Your task to perform on an android device: check android version Image 0: 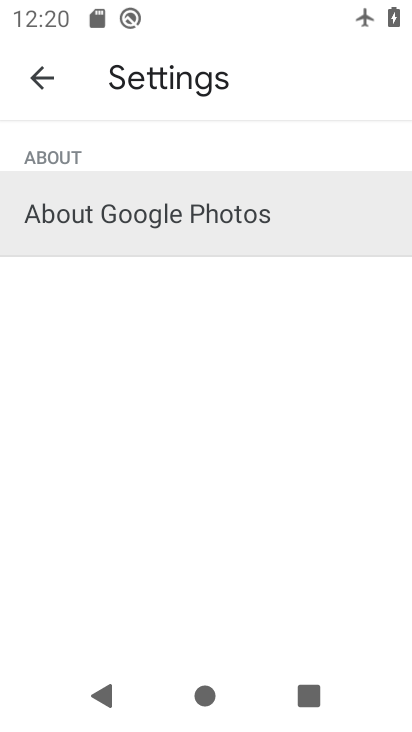
Step 0: press home button
Your task to perform on an android device: check android version Image 1: 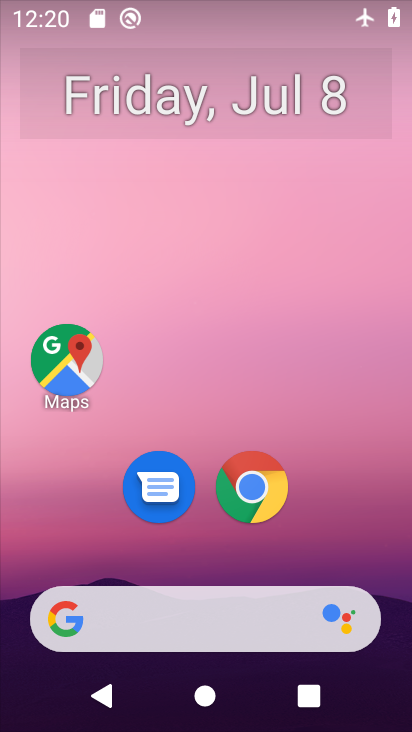
Step 1: drag from (367, 548) to (366, 111)
Your task to perform on an android device: check android version Image 2: 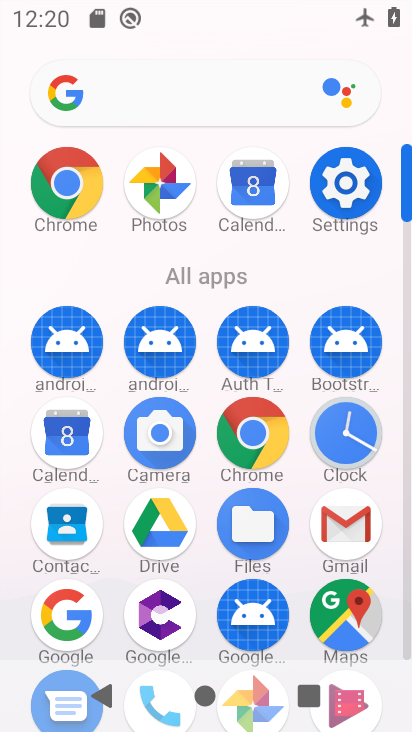
Step 2: click (347, 182)
Your task to perform on an android device: check android version Image 3: 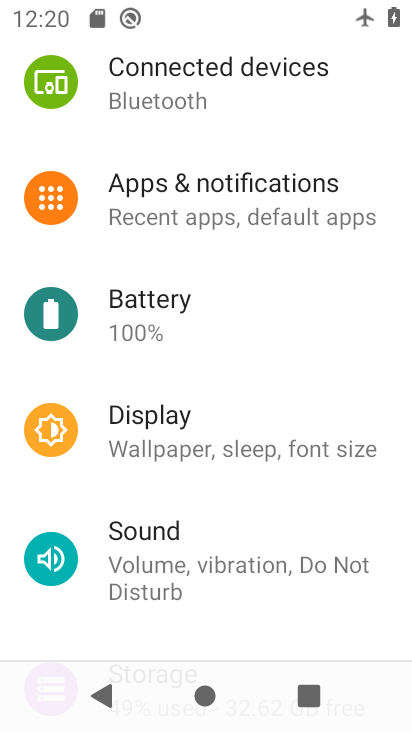
Step 3: drag from (359, 349) to (363, 246)
Your task to perform on an android device: check android version Image 4: 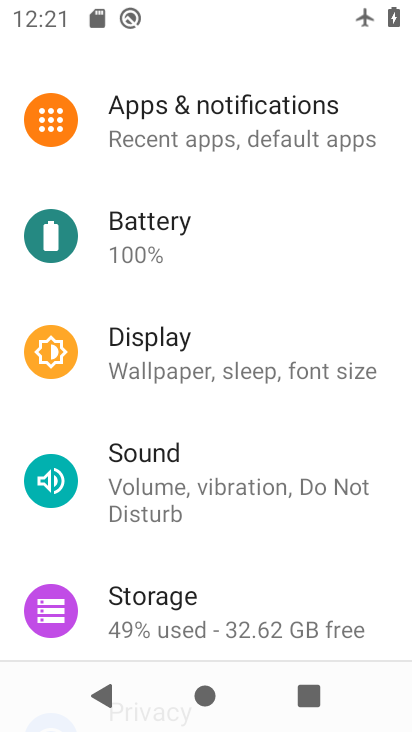
Step 4: drag from (373, 407) to (377, 306)
Your task to perform on an android device: check android version Image 5: 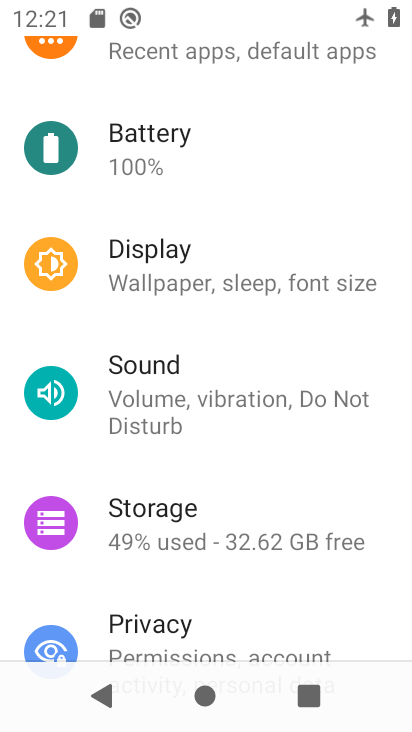
Step 5: drag from (363, 427) to (378, 327)
Your task to perform on an android device: check android version Image 6: 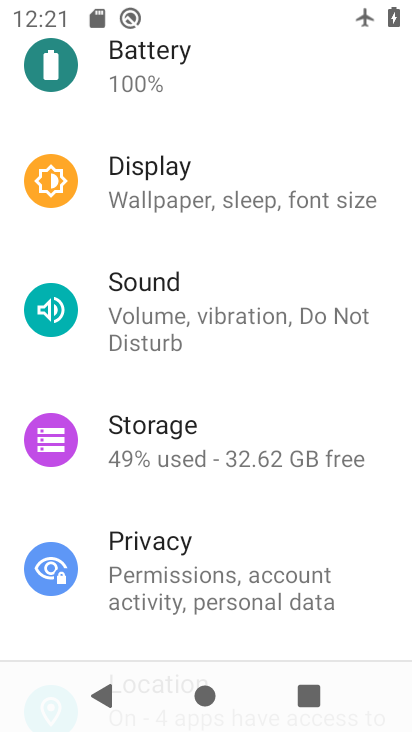
Step 6: drag from (378, 414) to (376, 334)
Your task to perform on an android device: check android version Image 7: 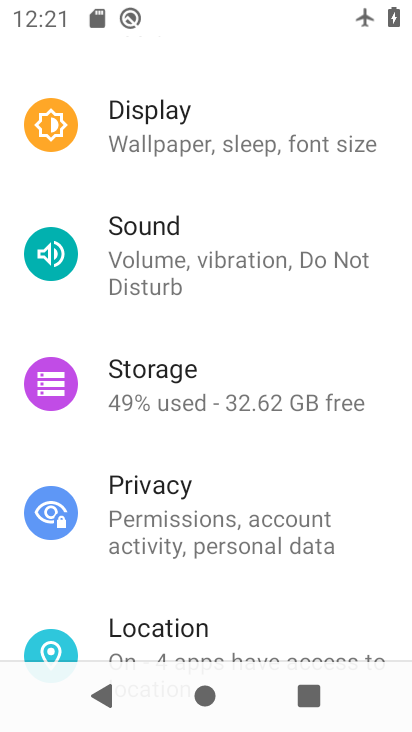
Step 7: drag from (357, 438) to (367, 358)
Your task to perform on an android device: check android version Image 8: 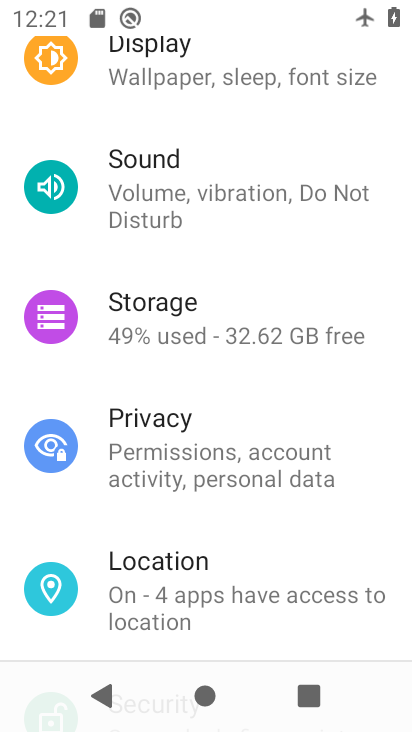
Step 8: drag from (372, 436) to (386, 344)
Your task to perform on an android device: check android version Image 9: 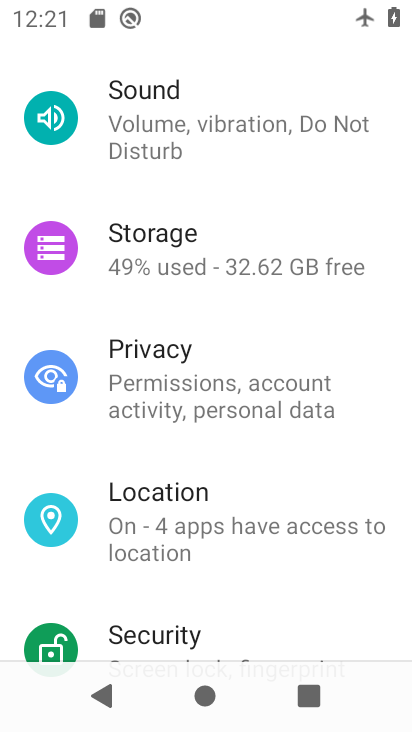
Step 9: drag from (372, 435) to (383, 344)
Your task to perform on an android device: check android version Image 10: 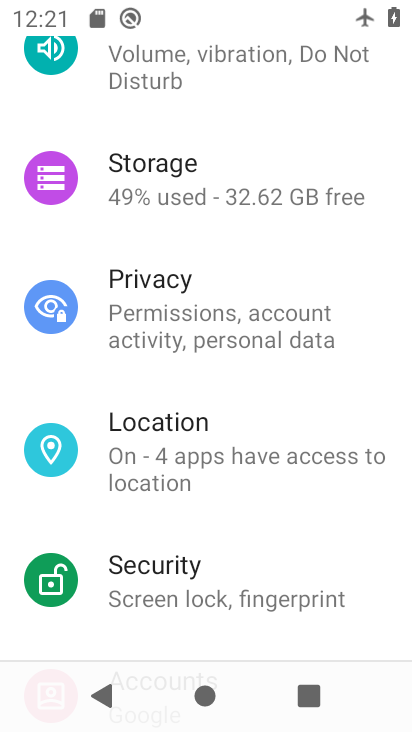
Step 10: drag from (365, 477) to (382, 356)
Your task to perform on an android device: check android version Image 11: 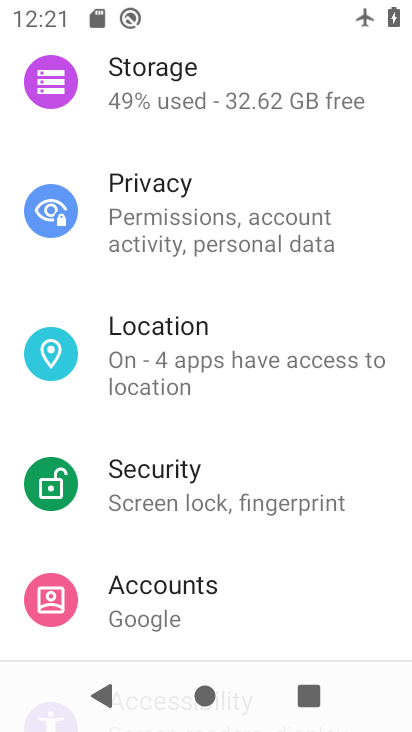
Step 11: drag from (368, 470) to (371, 378)
Your task to perform on an android device: check android version Image 12: 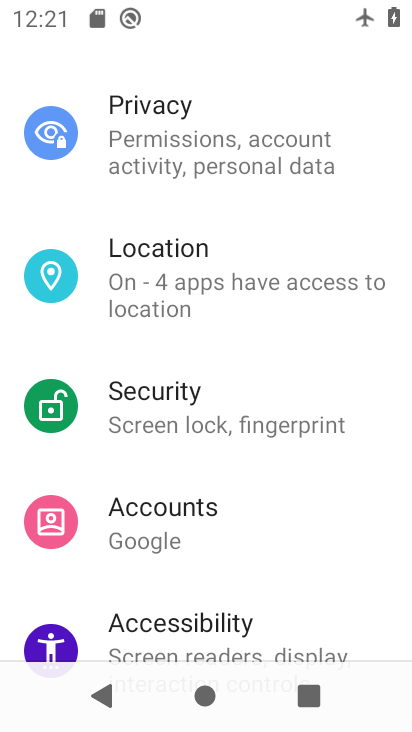
Step 12: drag from (361, 480) to (370, 406)
Your task to perform on an android device: check android version Image 13: 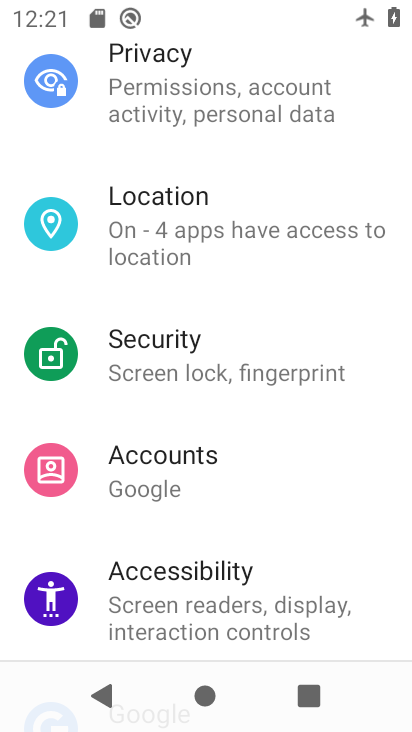
Step 13: drag from (360, 503) to (373, 405)
Your task to perform on an android device: check android version Image 14: 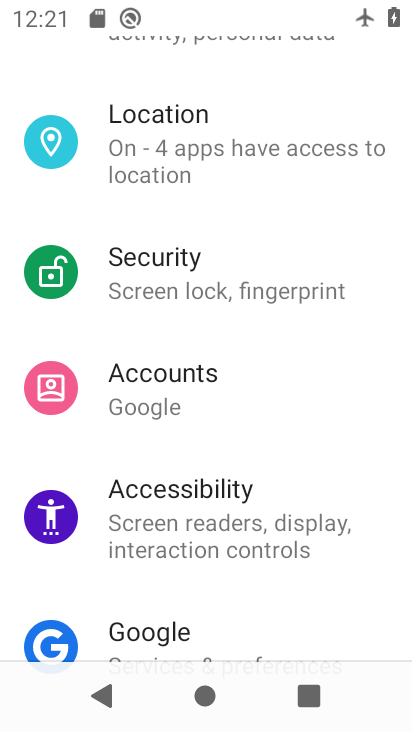
Step 14: drag from (372, 503) to (369, 414)
Your task to perform on an android device: check android version Image 15: 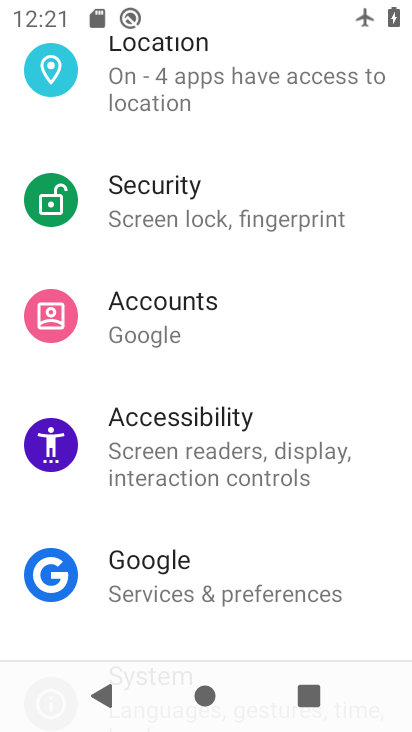
Step 15: drag from (356, 518) to (354, 438)
Your task to perform on an android device: check android version Image 16: 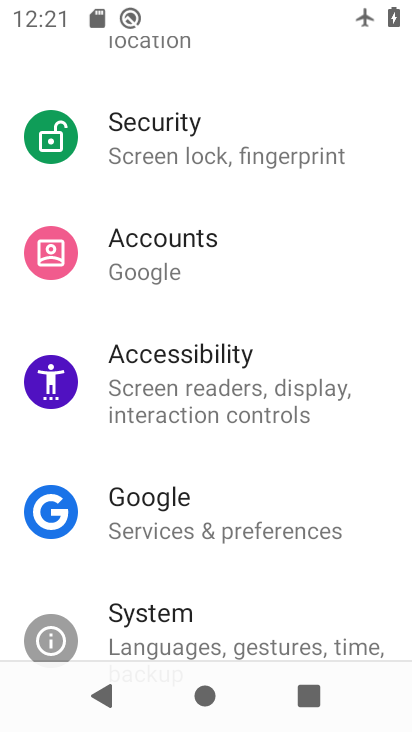
Step 16: drag from (361, 520) to (367, 405)
Your task to perform on an android device: check android version Image 17: 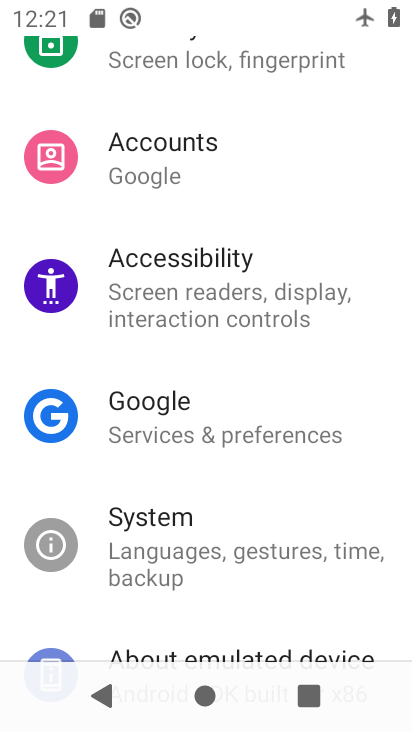
Step 17: drag from (375, 586) to (374, 446)
Your task to perform on an android device: check android version Image 18: 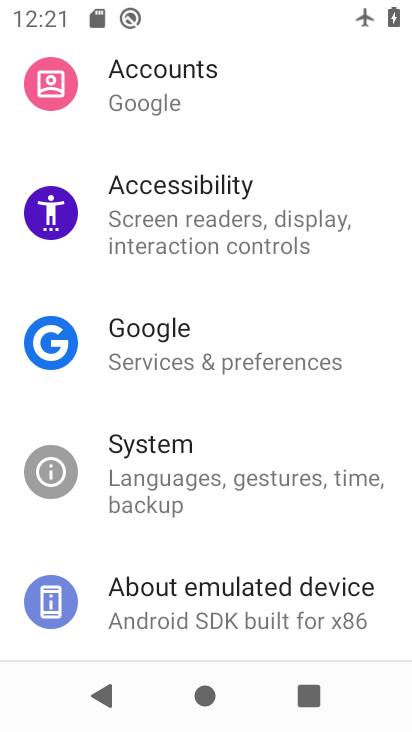
Step 18: click (354, 477)
Your task to perform on an android device: check android version Image 19: 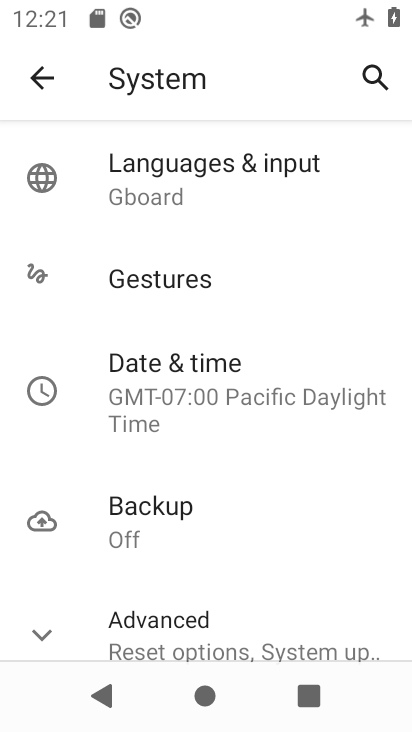
Step 19: drag from (329, 532) to (331, 428)
Your task to perform on an android device: check android version Image 20: 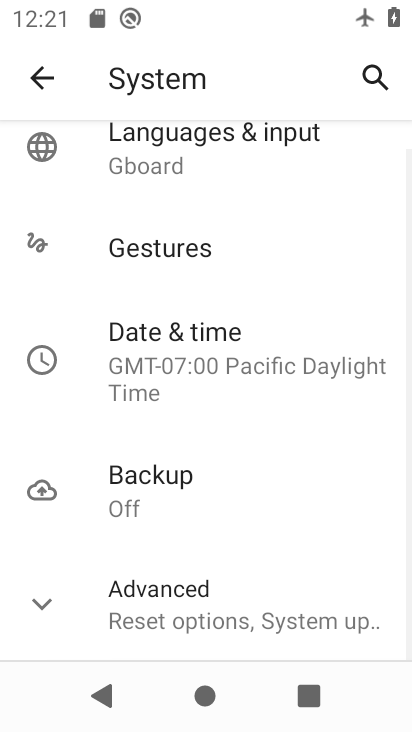
Step 20: click (303, 584)
Your task to perform on an android device: check android version Image 21: 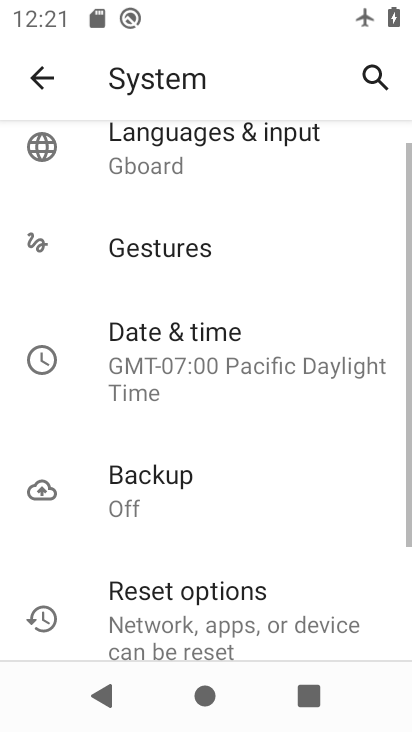
Step 21: drag from (348, 540) to (359, 432)
Your task to perform on an android device: check android version Image 22: 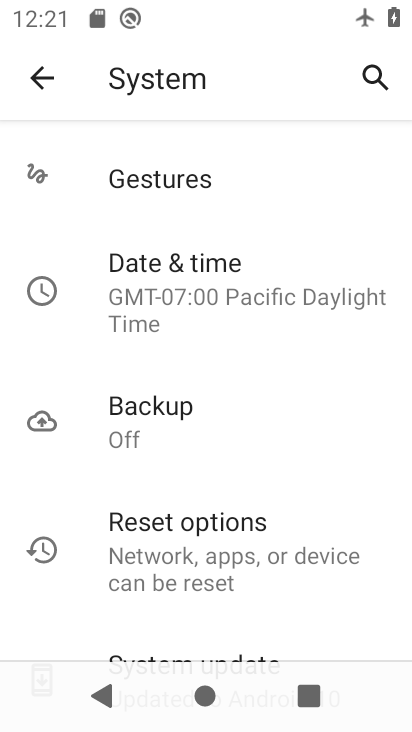
Step 22: drag from (378, 584) to (380, 469)
Your task to perform on an android device: check android version Image 23: 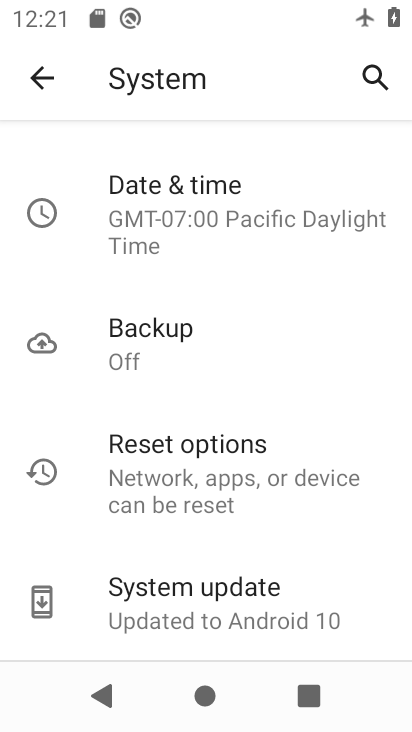
Step 23: click (338, 598)
Your task to perform on an android device: check android version Image 24: 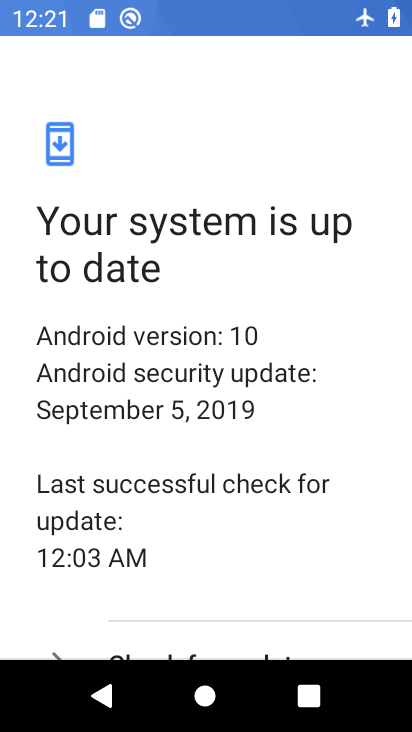
Step 24: task complete